Your task to perform on an android device: toggle show notifications on the lock screen Image 0: 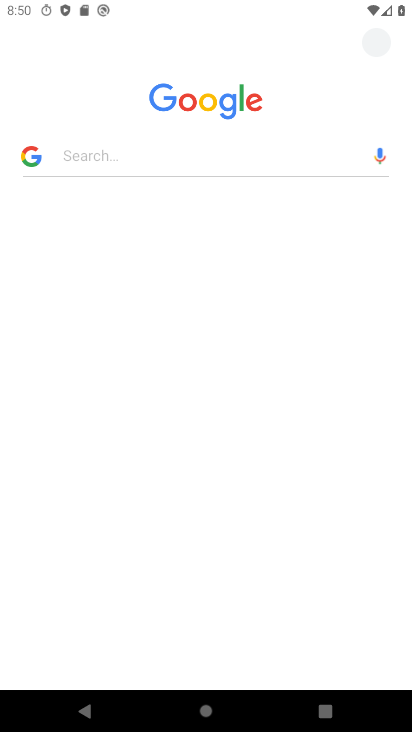
Step 0: drag from (292, 602) to (230, 220)
Your task to perform on an android device: toggle show notifications on the lock screen Image 1: 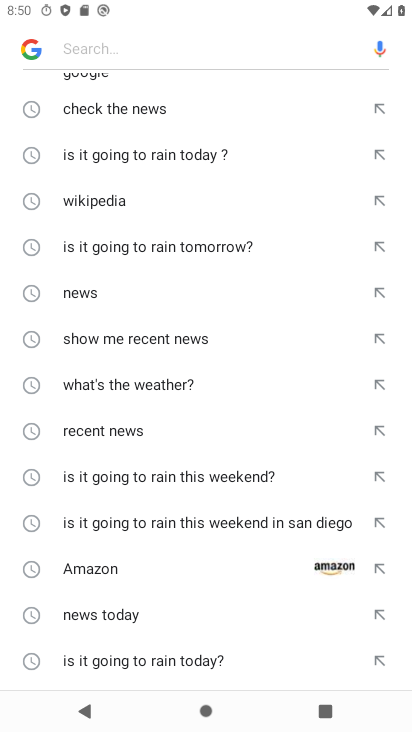
Step 1: press back button
Your task to perform on an android device: toggle show notifications on the lock screen Image 2: 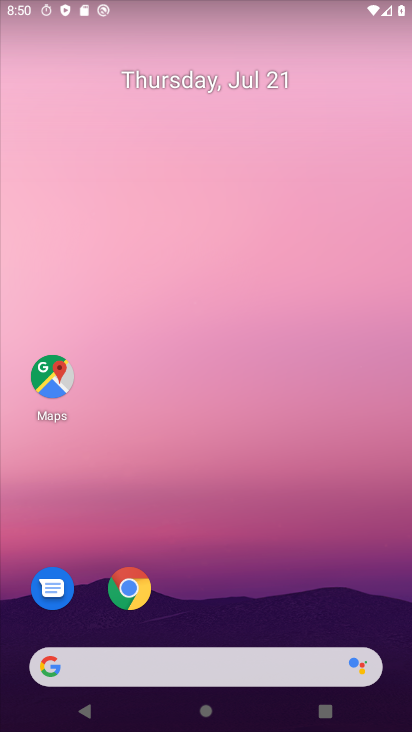
Step 2: drag from (228, 538) to (214, 226)
Your task to perform on an android device: toggle show notifications on the lock screen Image 3: 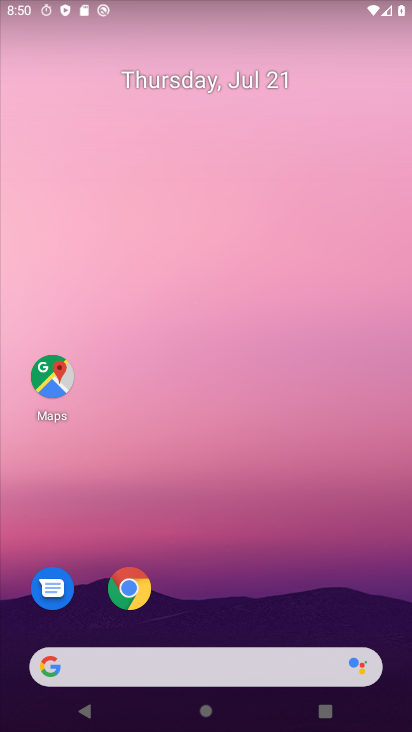
Step 3: drag from (244, 647) to (173, 272)
Your task to perform on an android device: toggle show notifications on the lock screen Image 4: 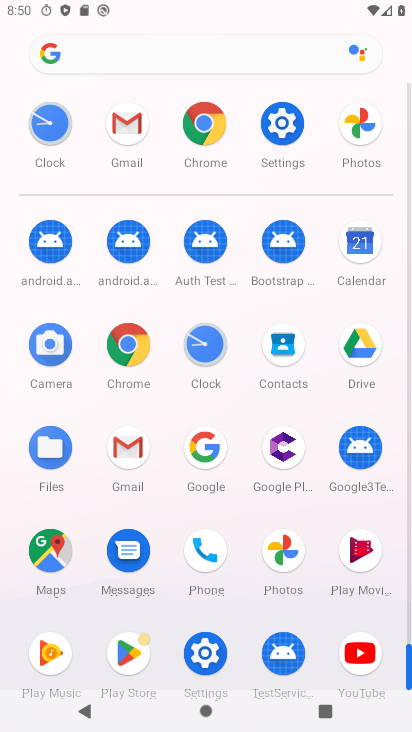
Step 4: click (267, 123)
Your task to perform on an android device: toggle show notifications on the lock screen Image 5: 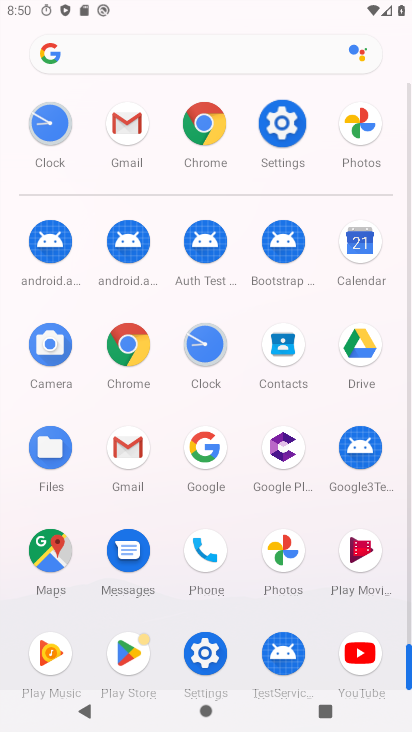
Step 5: click (272, 122)
Your task to perform on an android device: toggle show notifications on the lock screen Image 6: 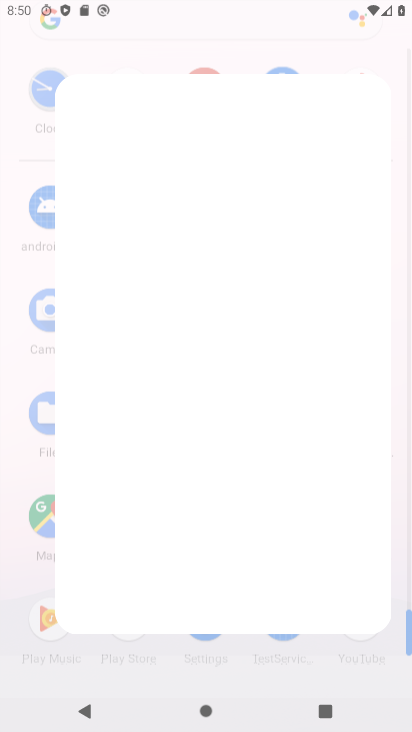
Step 6: click (273, 121)
Your task to perform on an android device: toggle show notifications on the lock screen Image 7: 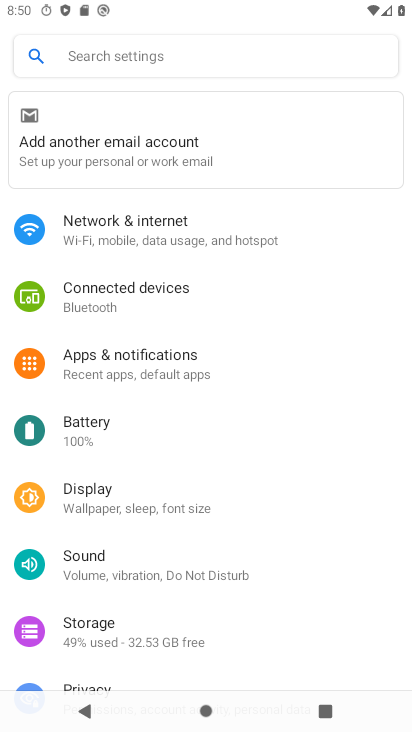
Step 7: click (122, 370)
Your task to perform on an android device: toggle show notifications on the lock screen Image 8: 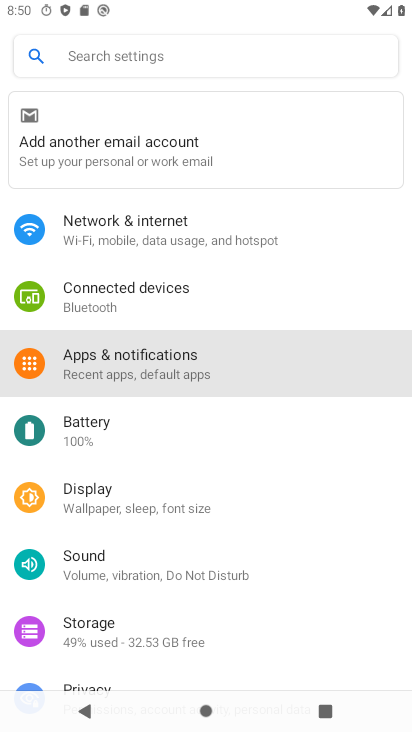
Step 8: click (118, 362)
Your task to perform on an android device: toggle show notifications on the lock screen Image 9: 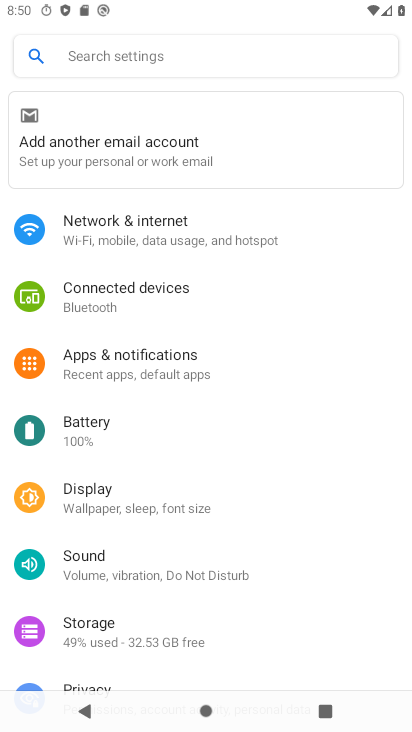
Step 9: click (117, 363)
Your task to perform on an android device: toggle show notifications on the lock screen Image 10: 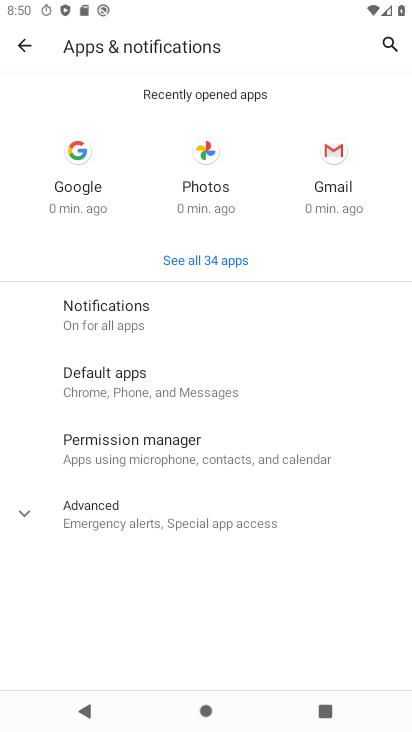
Step 10: click (94, 316)
Your task to perform on an android device: toggle show notifications on the lock screen Image 11: 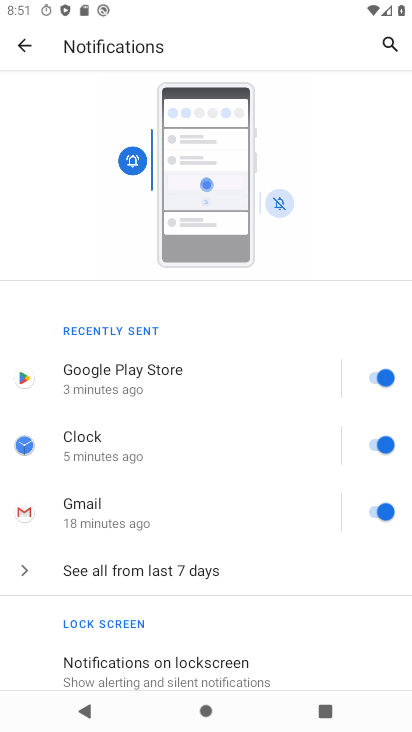
Step 11: drag from (123, 549) to (123, 254)
Your task to perform on an android device: toggle show notifications on the lock screen Image 12: 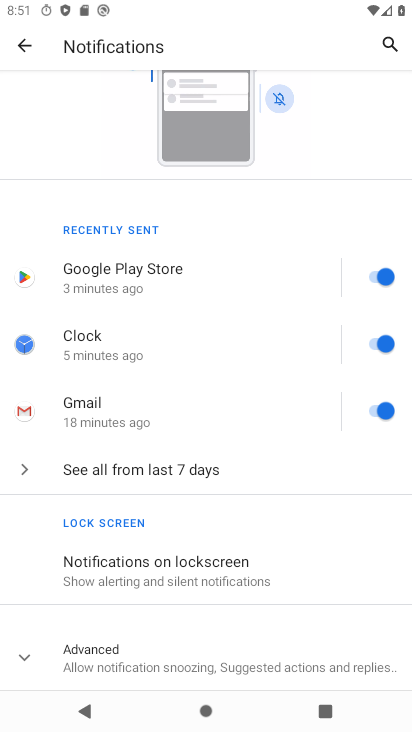
Step 12: click (121, 587)
Your task to perform on an android device: toggle show notifications on the lock screen Image 13: 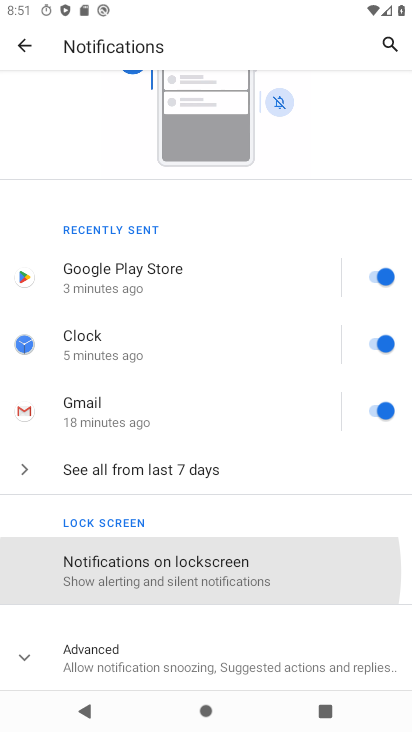
Step 13: click (123, 572)
Your task to perform on an android device: toggle show notifications on the lock screen Image 14: 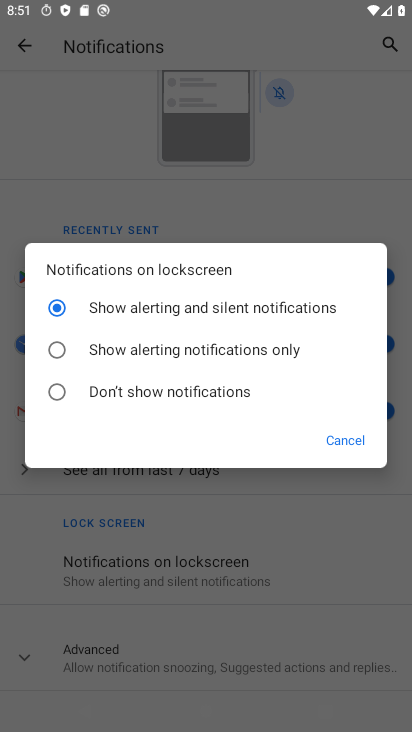
Step 14: click (340, 447)
Your task to perform on an android device: toggle show notifications on the lock screen Image 15: 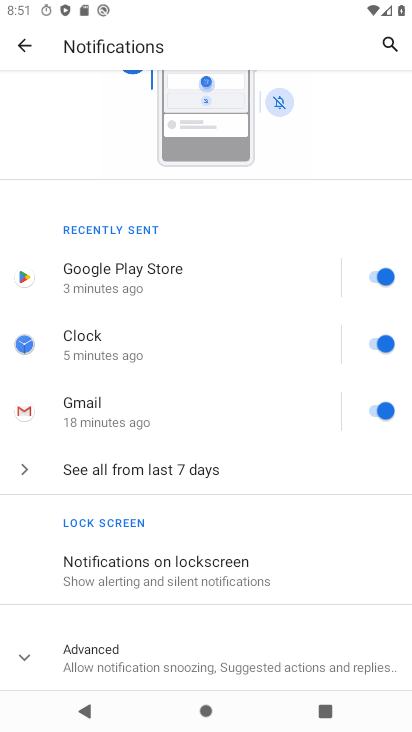
Step 15: task complete